Your task to perform on an android device: create a new album in the google photos Image 0: 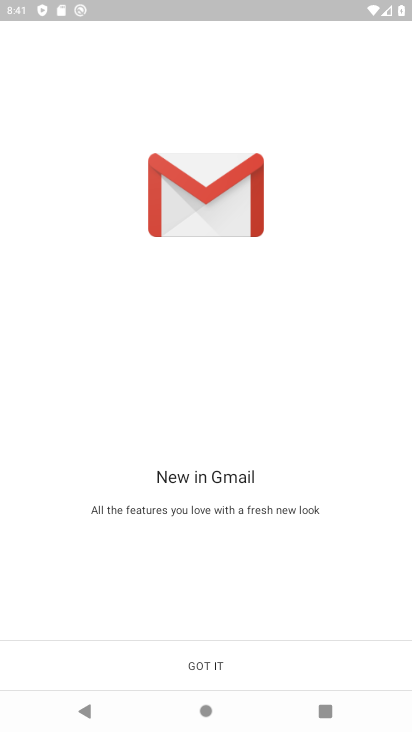
Step 0: press home button
Your task to perform on an android device: create a new album in the google photos Image 1: 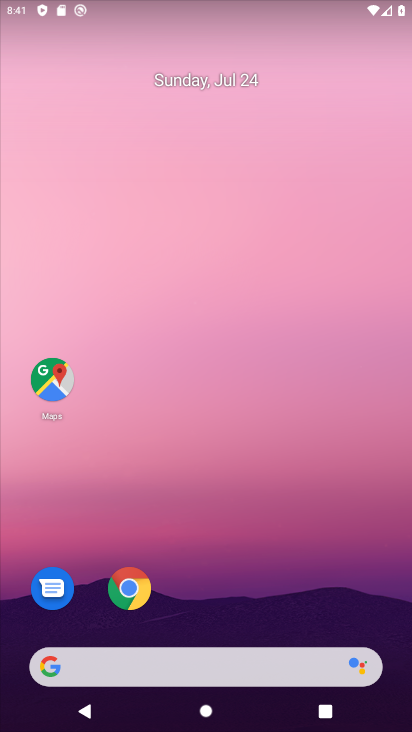
Step 1: drag from (395, 582) to (283, 9)
Your task to perform on an android device: create a new album in the google photos Image 2: 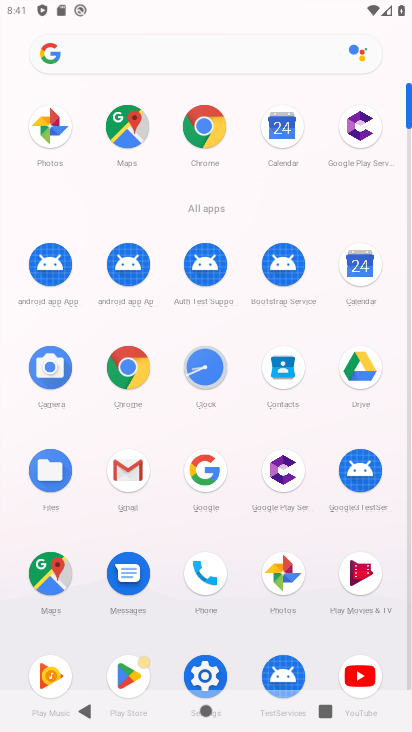
Step 2: click (283, 575)
Your task to perform on an android device: create a new album in the google photos Image 3: 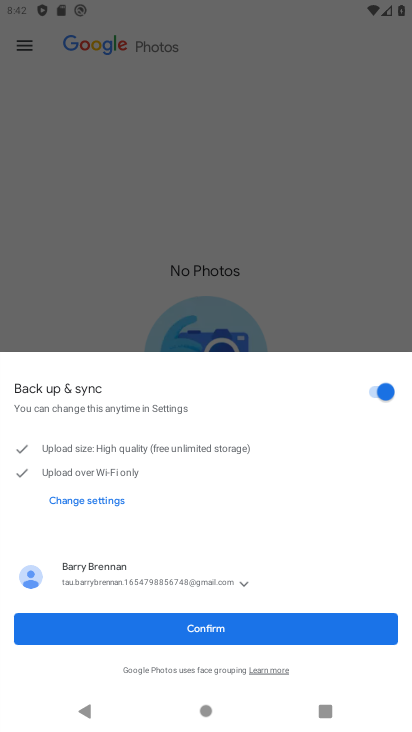
Step 3: click (284, 628)
Your task to perform on an android device: create a new album in the google photos Image 4: 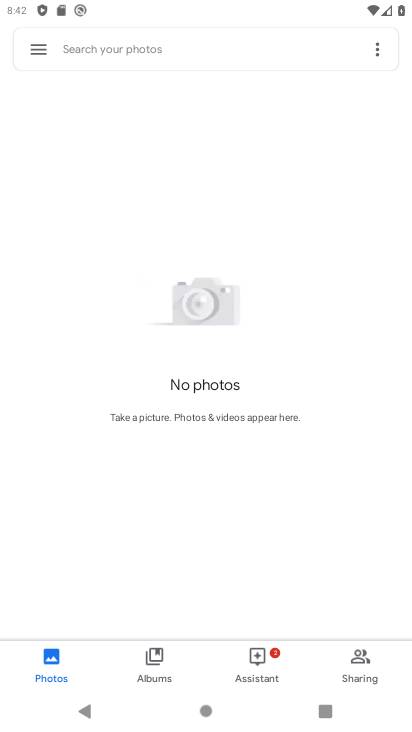
Step 4: click (377, 46)
Your task to perform on an android device: create a new album in the google photos Image 5: 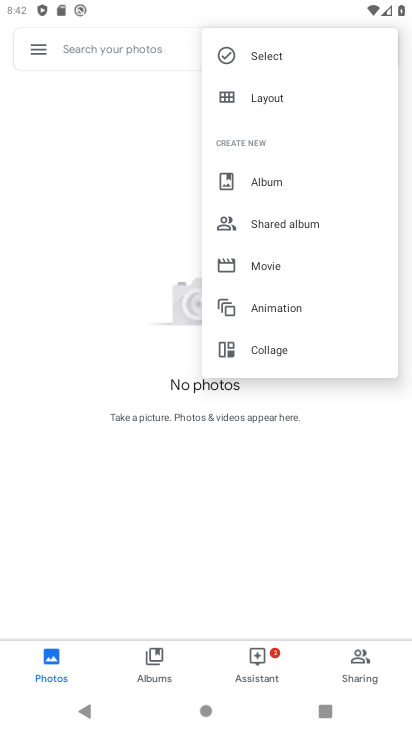
Step 5: click (262, 176)
Your task to perform on an android device: create a new album in the google photos Image 6: 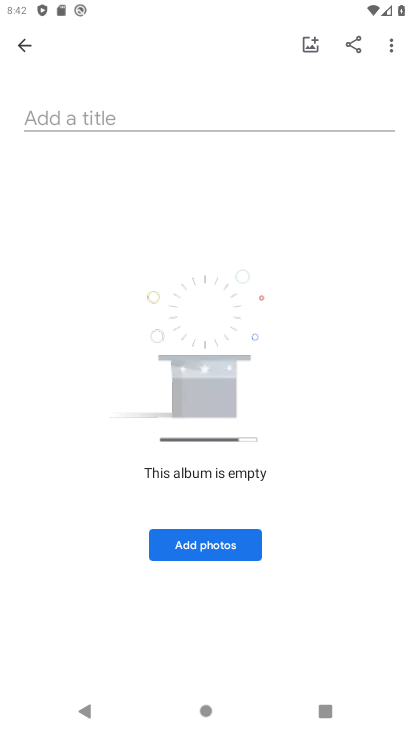
Step 6: task complete